Your task to perform on an android device: Open network settings Image 0: 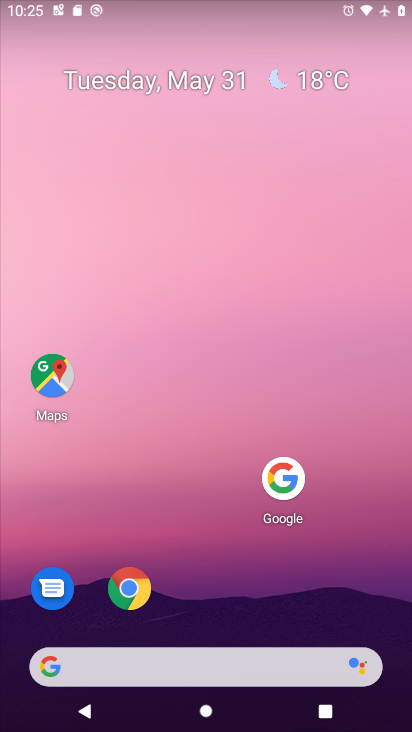
Step 0: drag from (166, 664) to (282, 80)
Your task to perform on an android device: Open network settings Image 1: 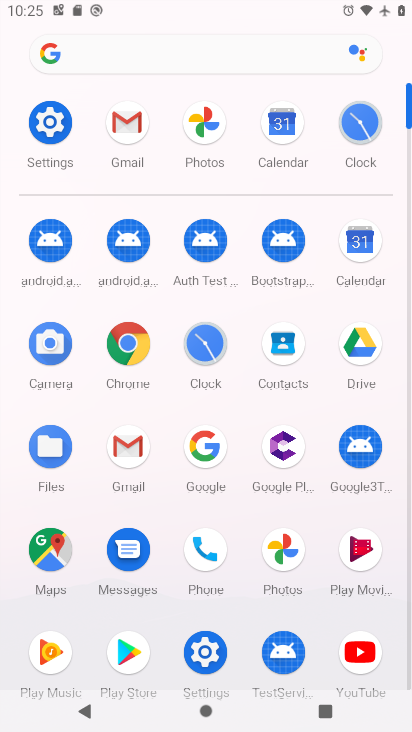
Step 1: click (57, 131)
Your task to perform on an android device: Open network settings Image 2: 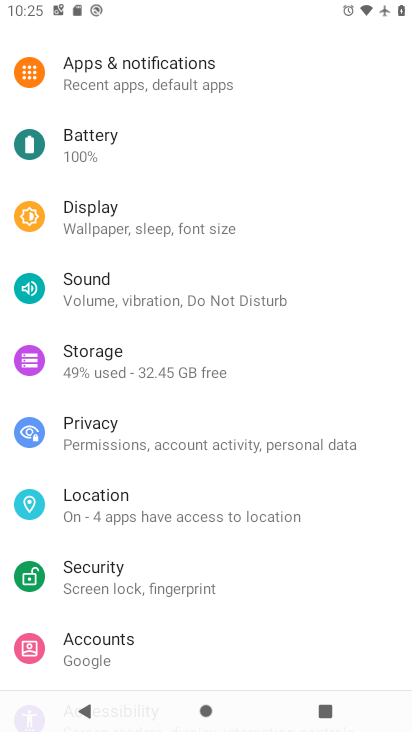
Step 2: drag from (332, 115) to (232, 620)
Your task to perform on an android device: Open network settings Image 3: 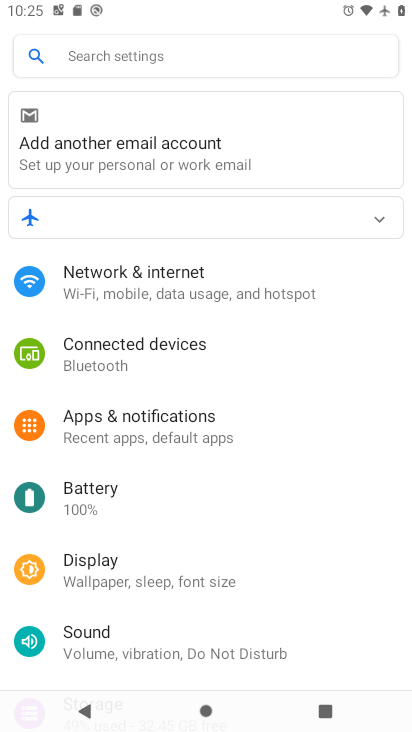
Step 3: click (160, 276)
Your task to perform on an android device: Open network settings Image 4: 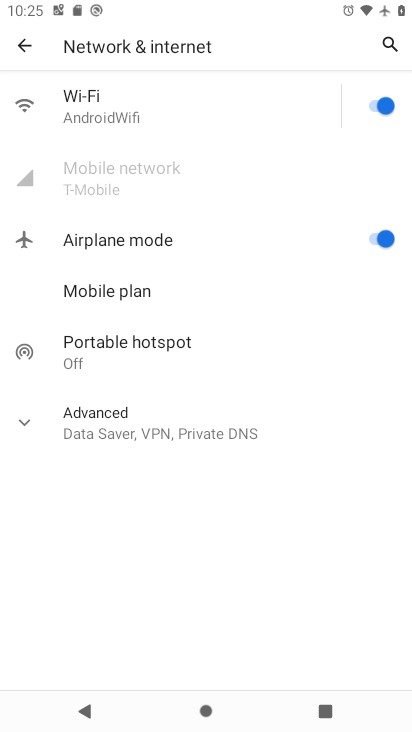
Step 4: task complete